Your task to perform on an android device: turn on priority inbox in the gmail app Image 0: 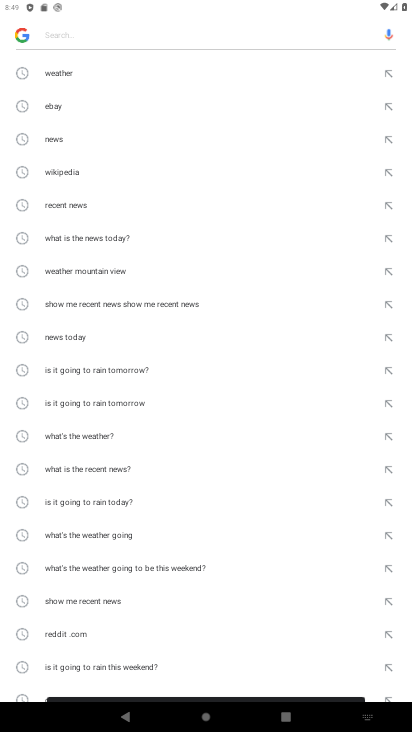
Step 0: press home button
Your task to perform on an android device: turn on priority inbox in the gmail app Image 1: 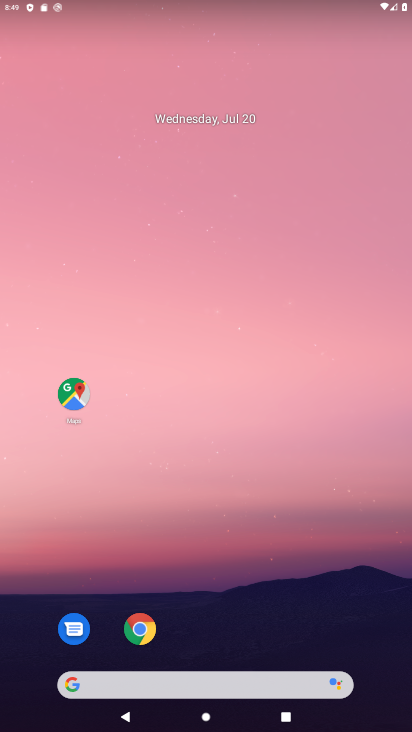
Step 1: drag from (368, 642) to (335, 93)
Your task to perform on an android device: turn on priority inbox in the gmail app Image 2: 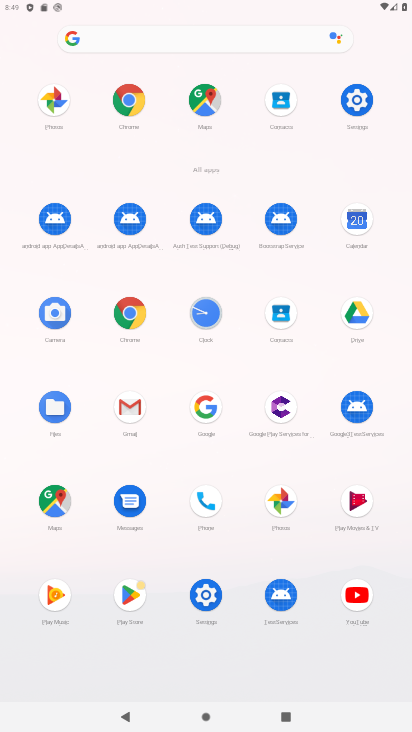
Step 2: click (129, 405)
Your task to perform on an android device: turn on priority inbox in the gmail app Image 3: 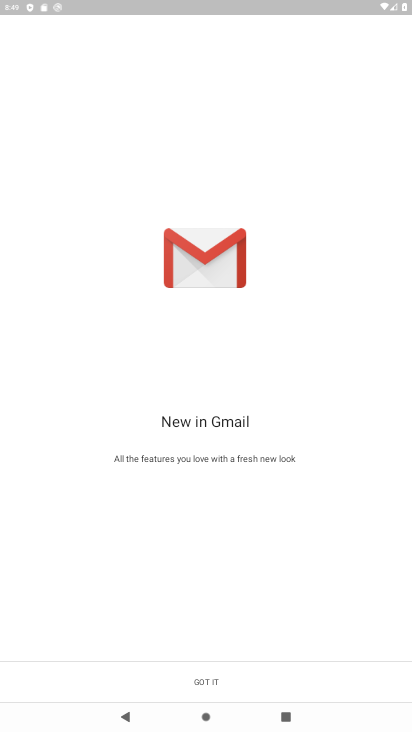
Step 3: click (200, 679)
Your task to perform on an android device: turn on priority inbox in the gmail app Image 4: 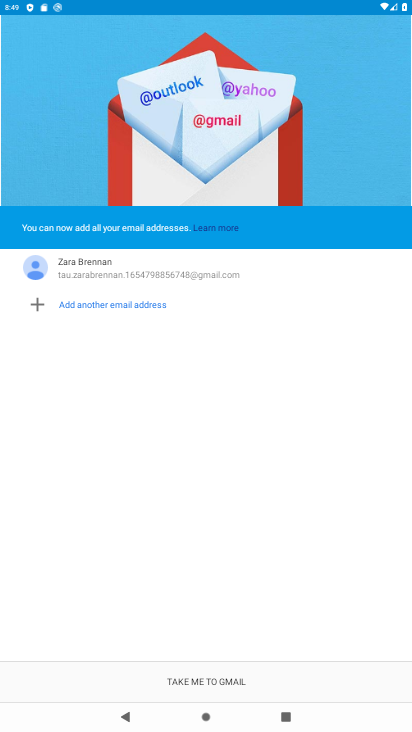
Step 4: click (200, 679)
Your task to perform on an android device: turn on priority inbox in the gmail app Image 5: 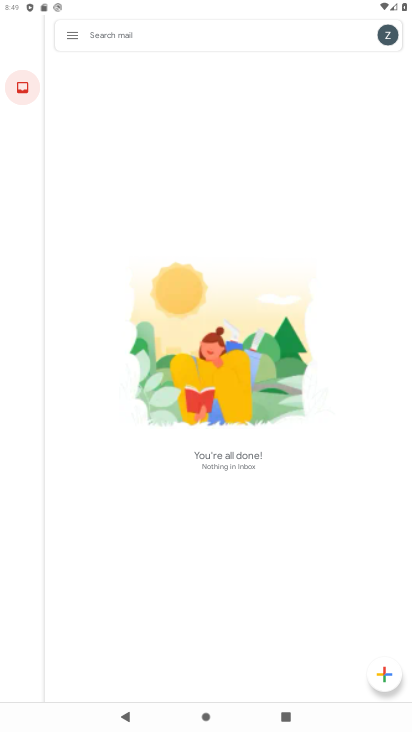
Step 5: click (59, 36)
Your task to perform on an android device: turn on priority inbox in the gmail app Image 6: 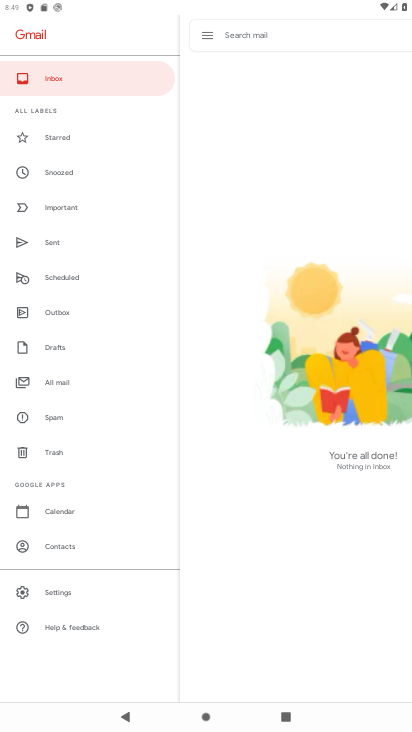
Step 6: click (60, 587)
Your task to perform on an android device: turn on priority inbox in the gmail app Image 7: 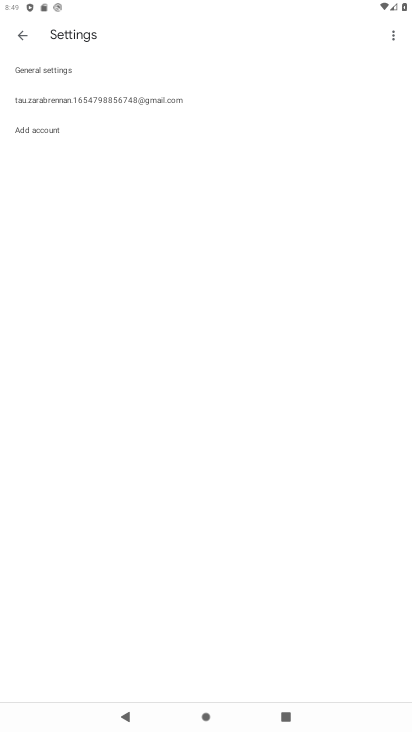
Step 7: click (100, 106)
Your task to perform on an android device: turn on priority inbox in the gmail app Image 8: 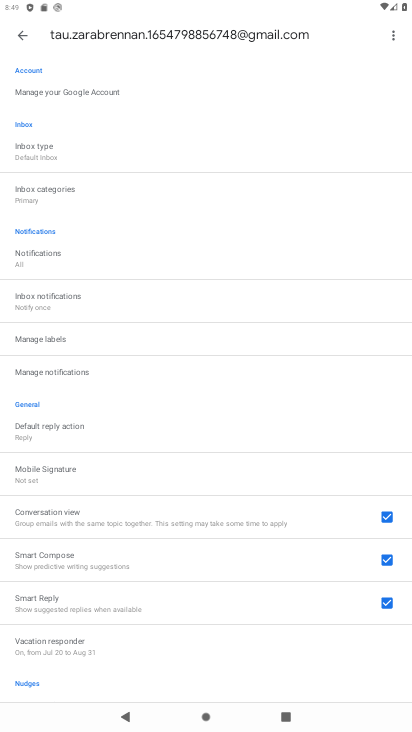
Step 8: click (20, 143)
Your task to perform on an android device: turn on priority inbox in the gmail app Image 9: 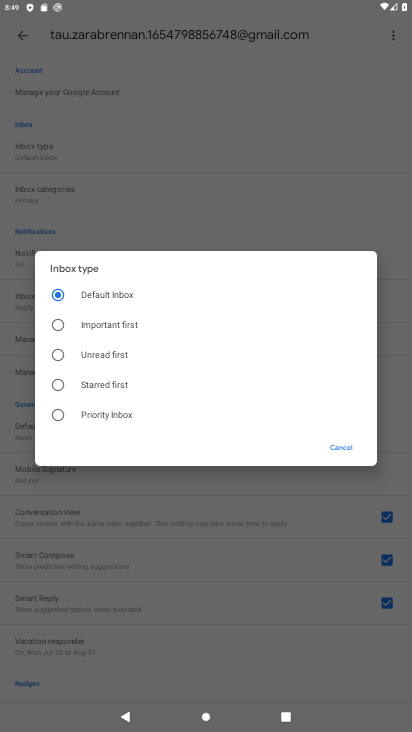
Step 9: click (54, 413)
Your task to perform on an android device: turn on priority inbox in the gmail app Image 10: 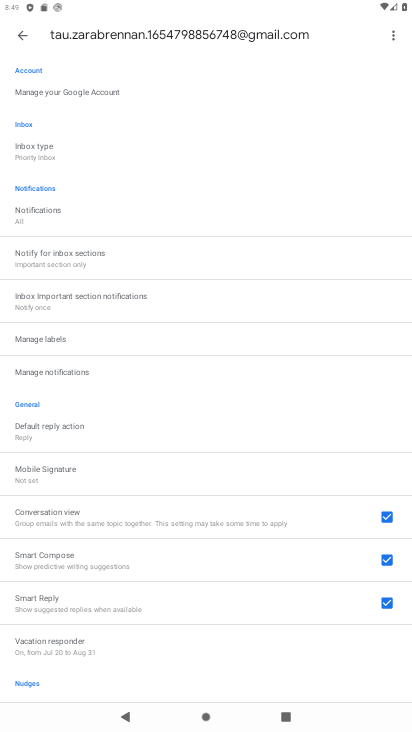
Step 10: task complete